Your task to perform on an android device: Go to Yahoo.com Image 0: 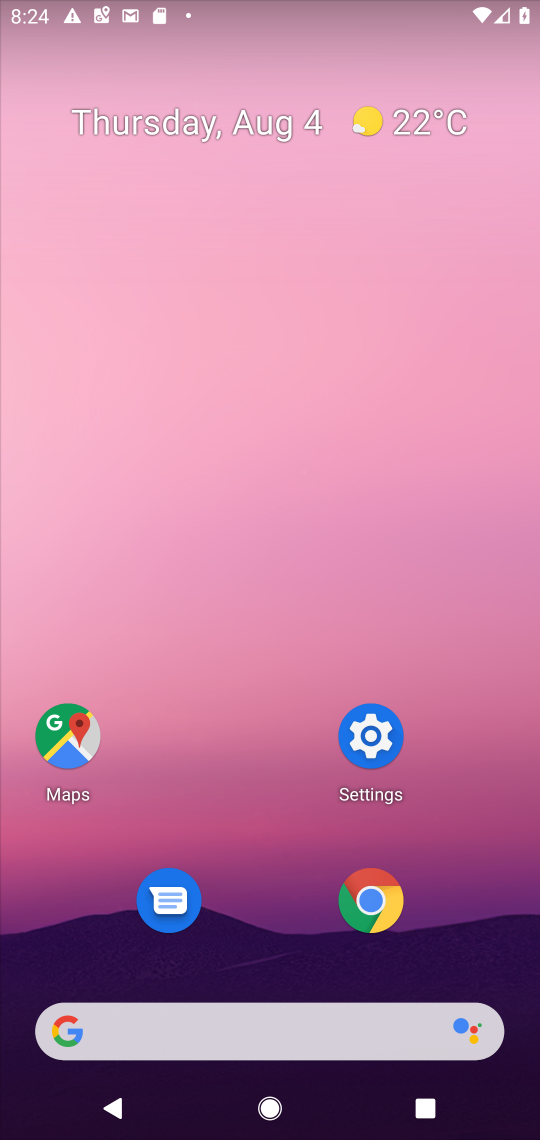
Step 0: press home button
Your task to perform on an android device: Go to Yahoo.com Image 1: 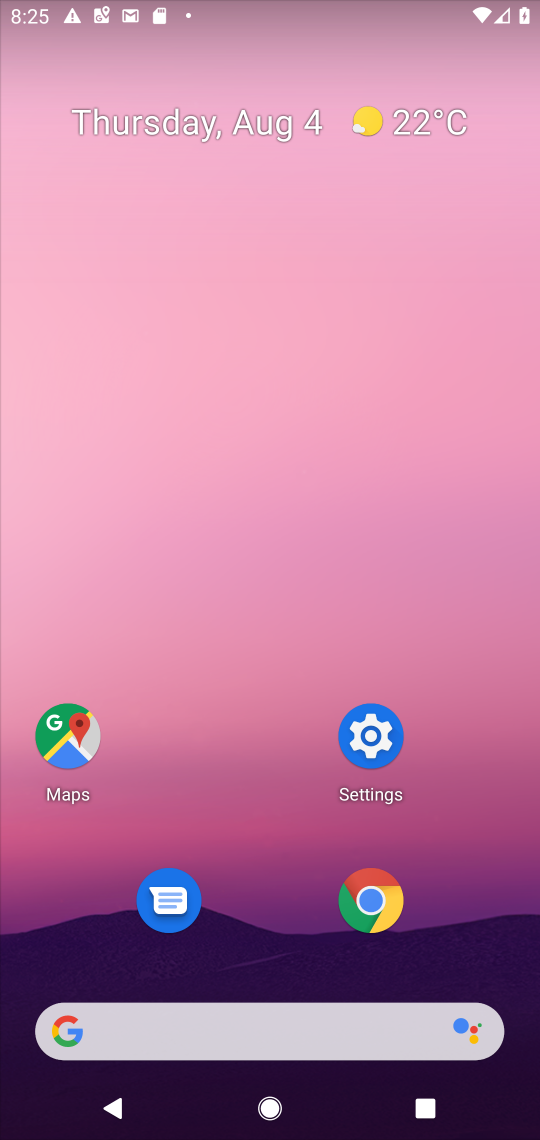
Step 1: click (384, 892)
Your task to perform on an android device: Go to Yahoo.com Image 2: 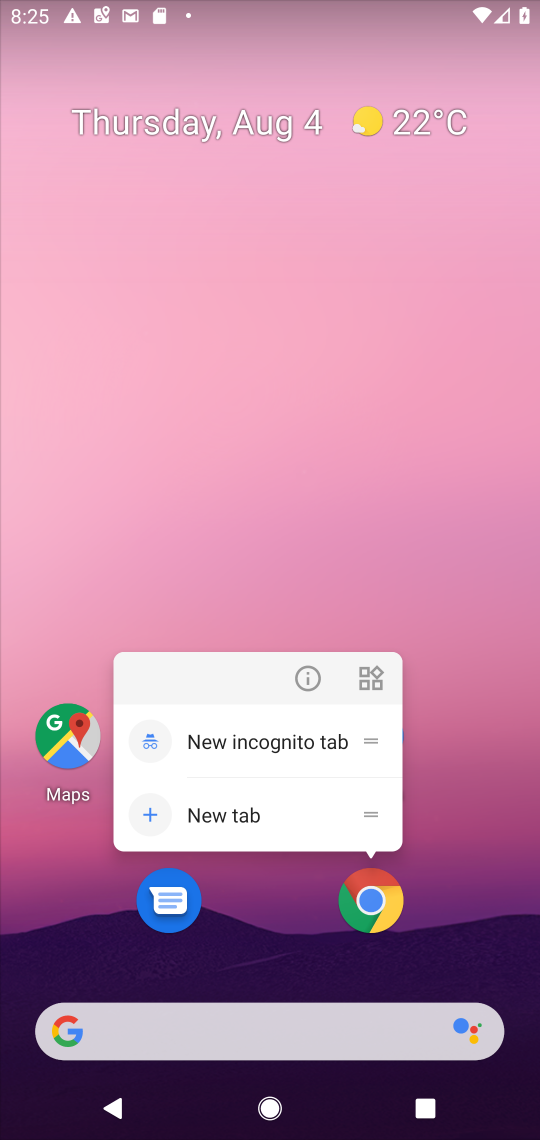
Step 2: click (367, 896)
Your task to perform on an android device: Go to Yahoo.com Image 3: 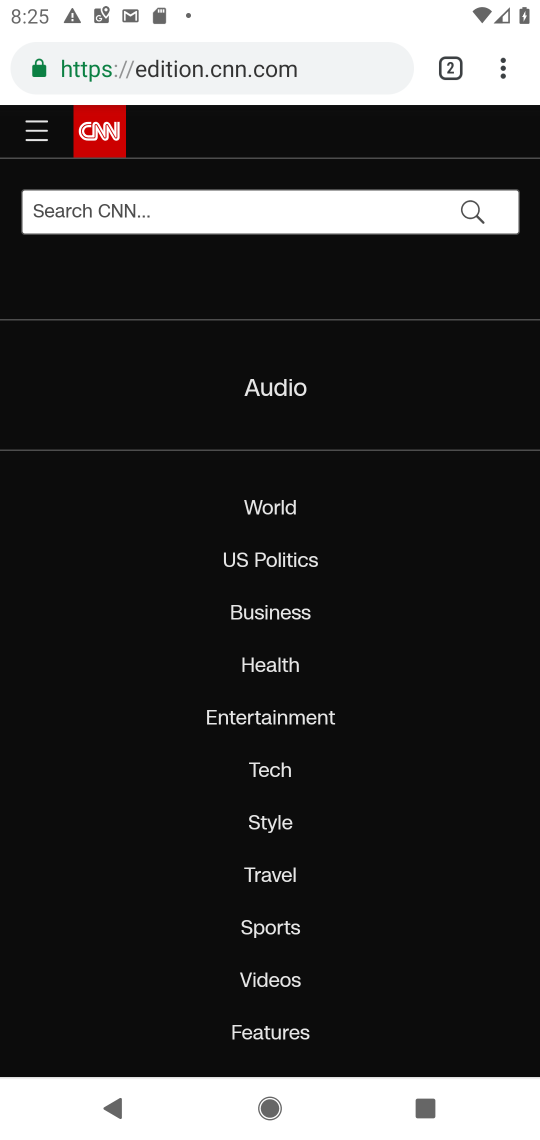
Step 3: drag from (500, 71) to (316, 223)
Your task to perform on an android device: Go to Yahoo.com Image 4: 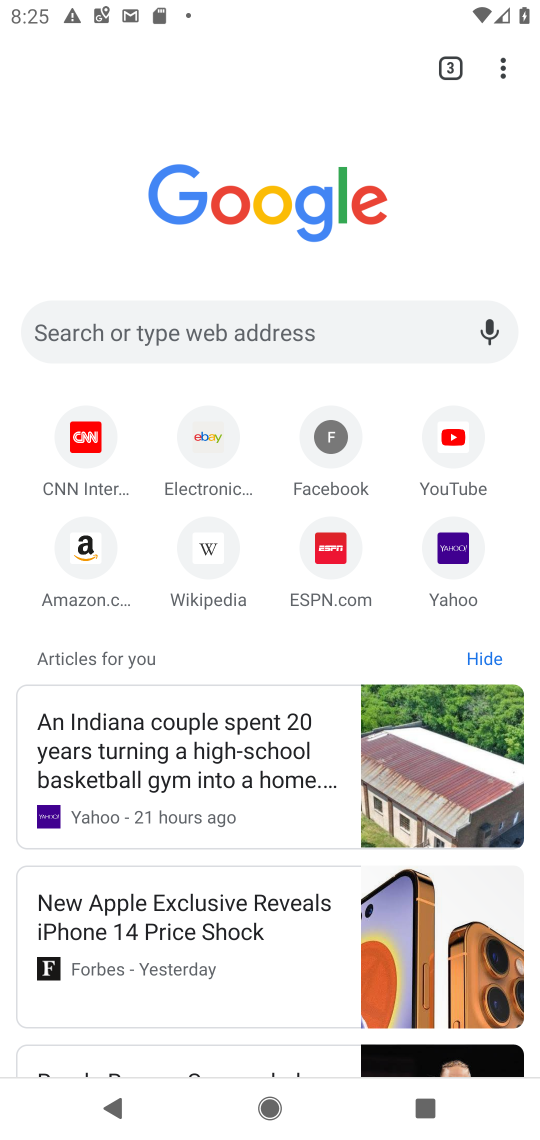
Step 4: click (453, 552)
Your task to perform on an android device: Go to Yahoo.com Image 5: 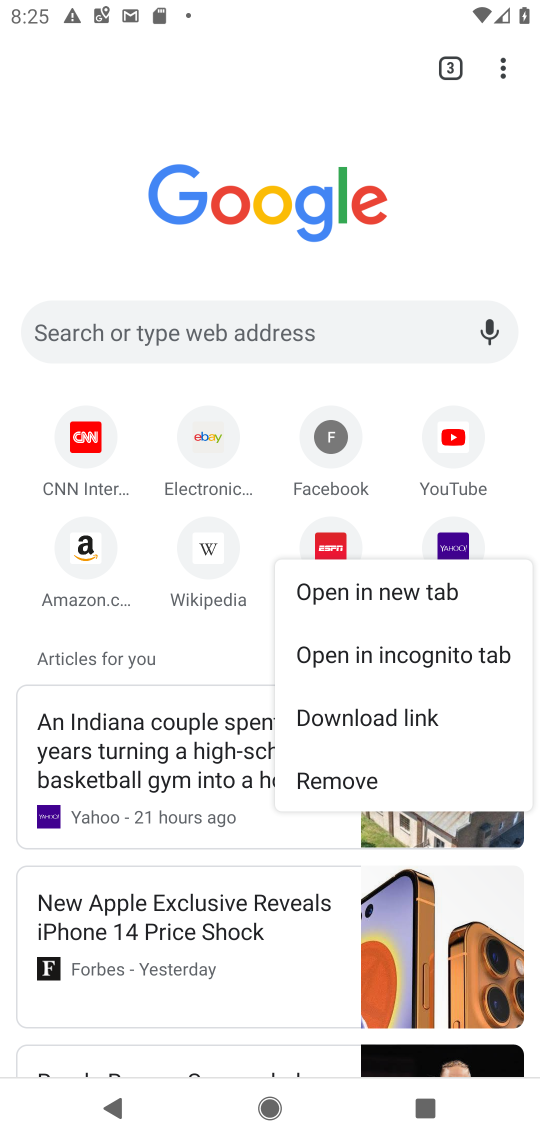
Step 5: click (453, 551)
Your task to perform on an android device: Go to Yahoo.com Image 6: 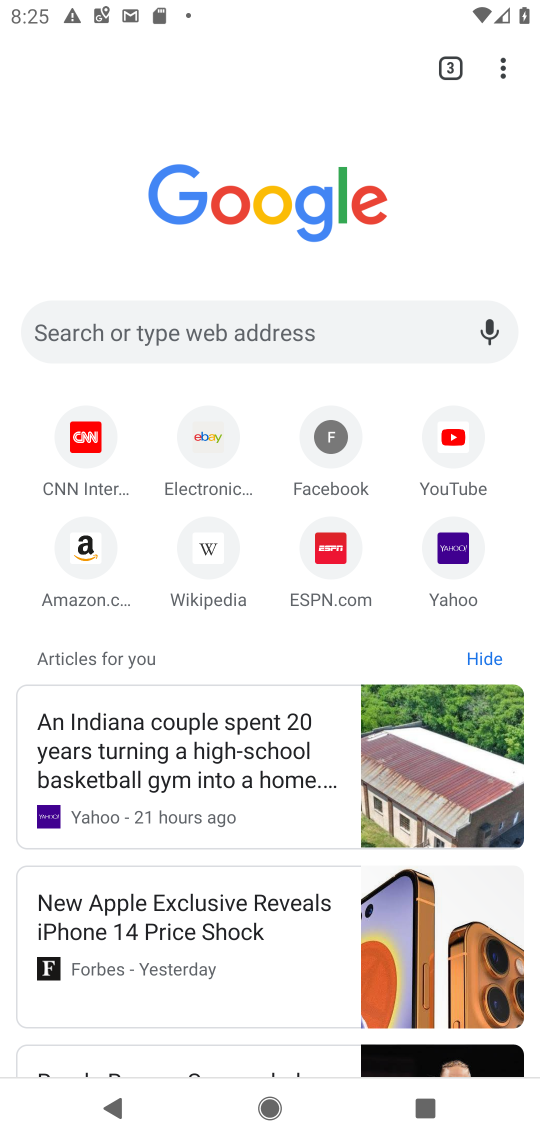
Step 6: click (453, 552)
Your task to perform on an android device: Go to Yahoo.com Image 7: 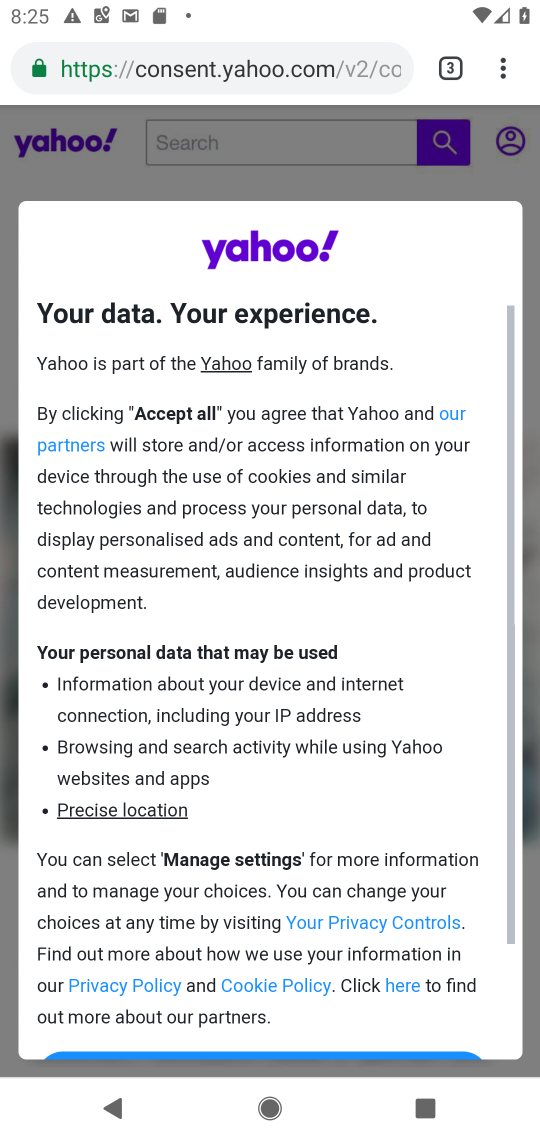
Step 7: drag from (308, 879) to (511, 271)
Your task to perform on an android device: Go to Yahoo.com Image 8: 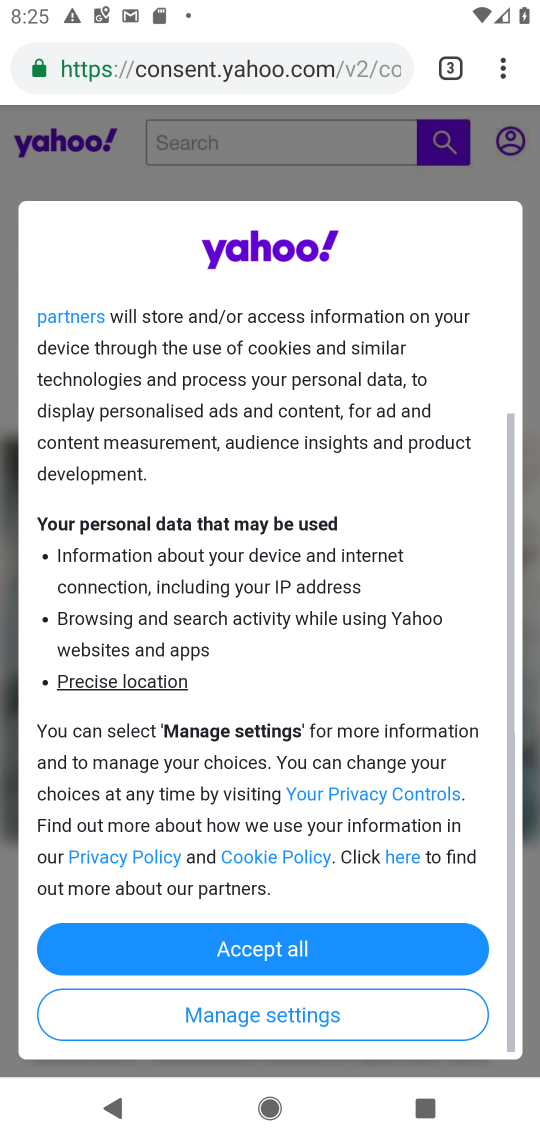
Step 8: click (265, 941)
Your task to perform on an android device: Go to Yahoo.com Image 9: 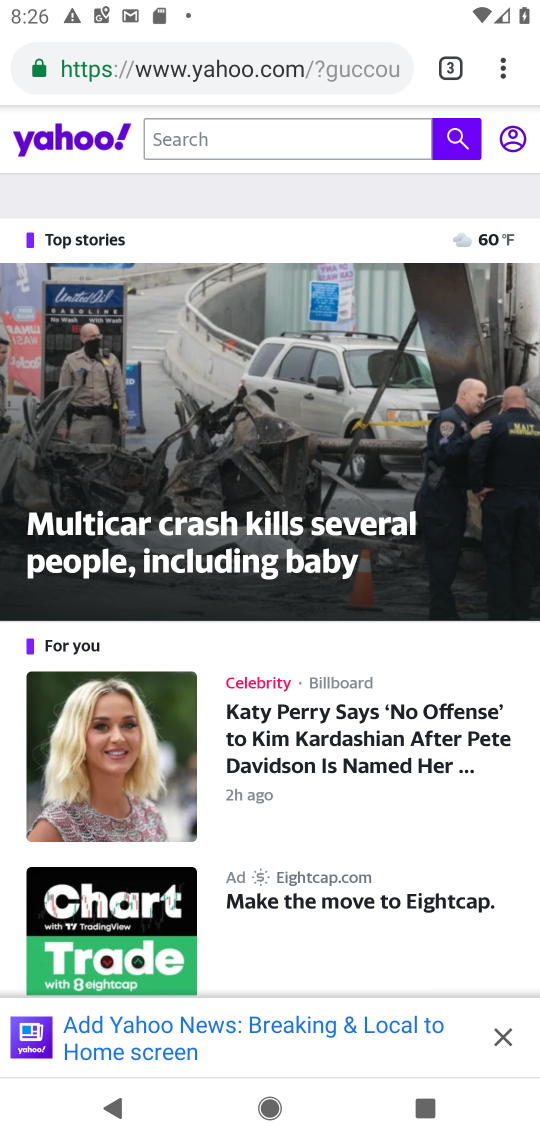
Step 9: task complete